Your task to perform on an android device: Go to Google Image 0: 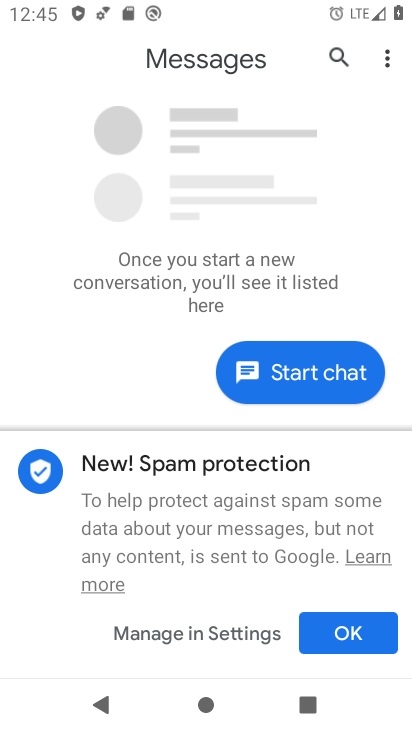
Step 0: press home button
Your task to perform on an android device: Go to Google Image 1: 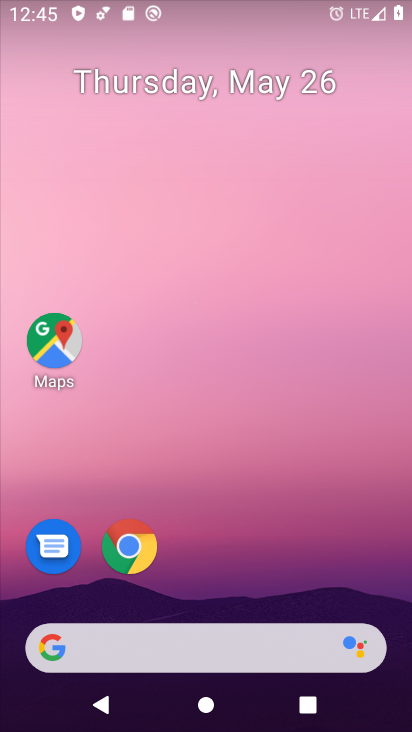
Step 1: drag from (391, 635) to (232, 49)
Your task to perform on an android device: Go to Google Image 2: 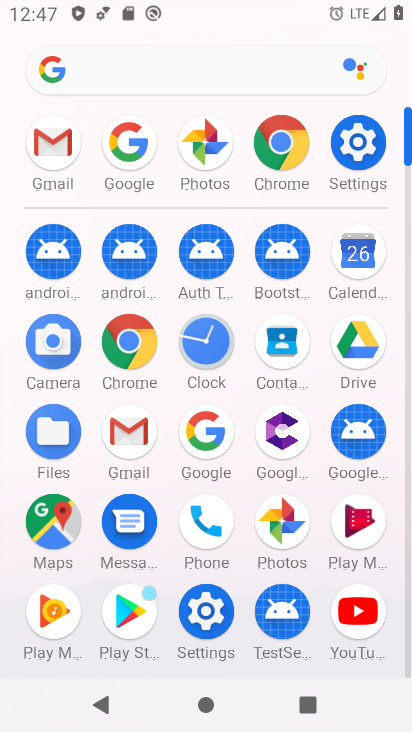
Step 2: click (209, 434)
Your task to perform on an android device: Go to Google Image 3: 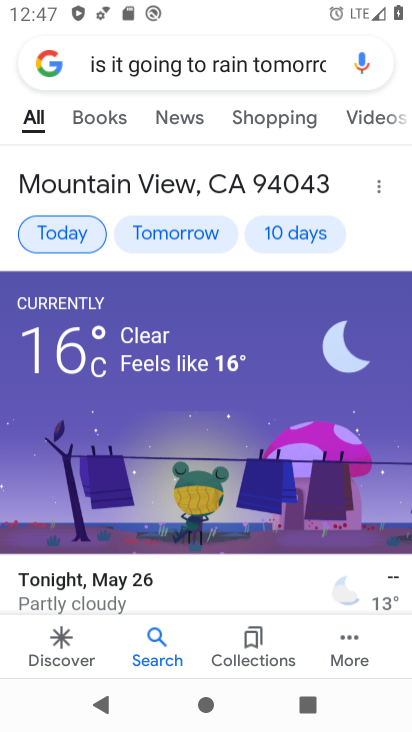
Step 3: task complete